Your task to perform on an android device: all mails in gmail Image 0: 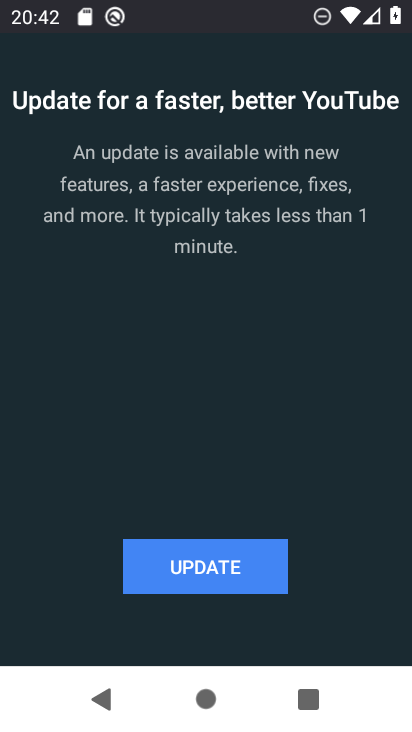
Step 0: press home button
Your task to perform on an android device: all mails in gmail Image 1: 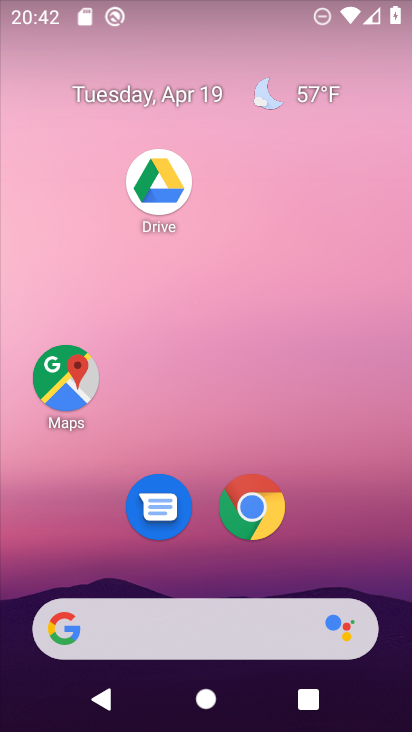
Step 1: drag from (332, 509) to (296, 118)
Your task to perform on an android device: all mails in gmail Image 2: 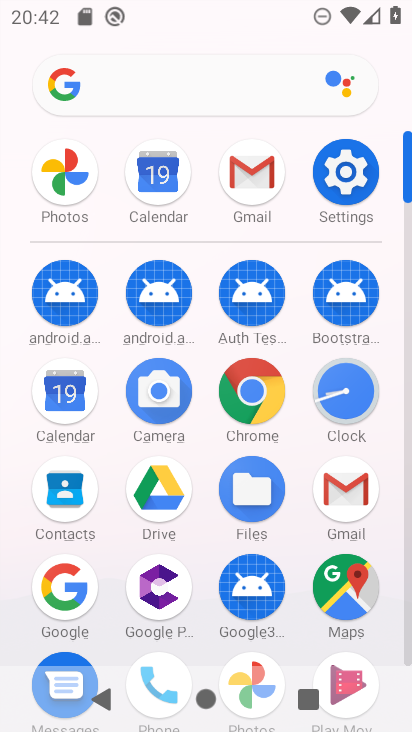
Step 2: click (254, 176)
Your task to perform on an android device: all mails in gmail Image 3: 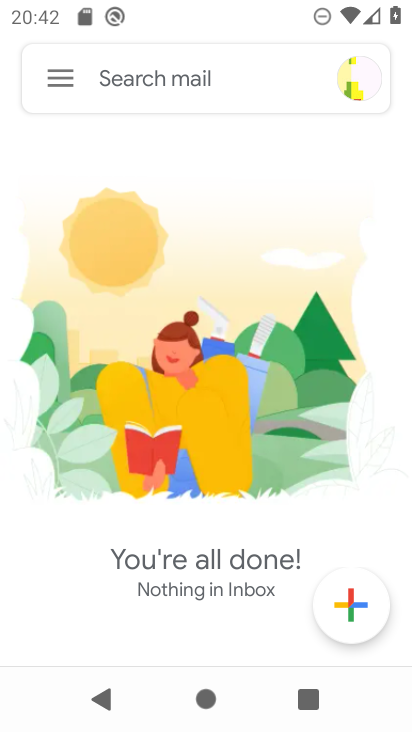
Step 3: click (67, 73)
Your task to perform on an android device: all mails in gmail Image 4: 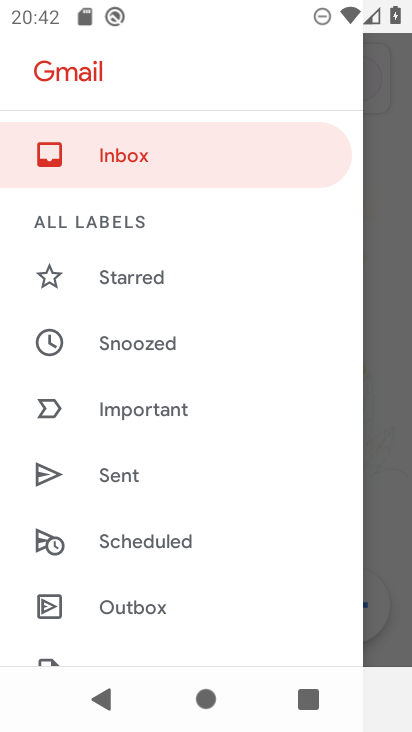
Step 4: drag from (249, 545) to (249, 133)
Your task to perform on an android device: all mails in gmail Image 5: 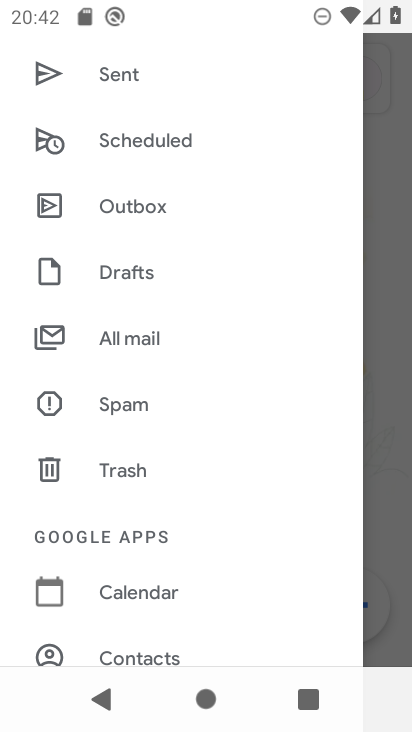
Step 5: click (194, 329)
Your task to perform on an android device: all mails in gmail Image 6: 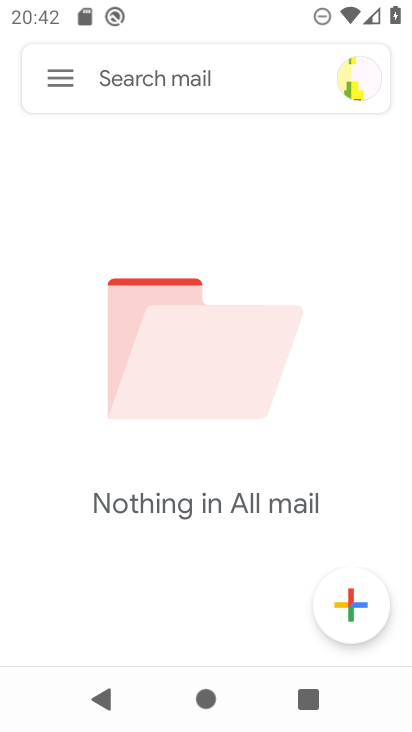
Step 6: task complete